Your task to perform on an android device: turn off notifications settings in the gmail app Image 0: 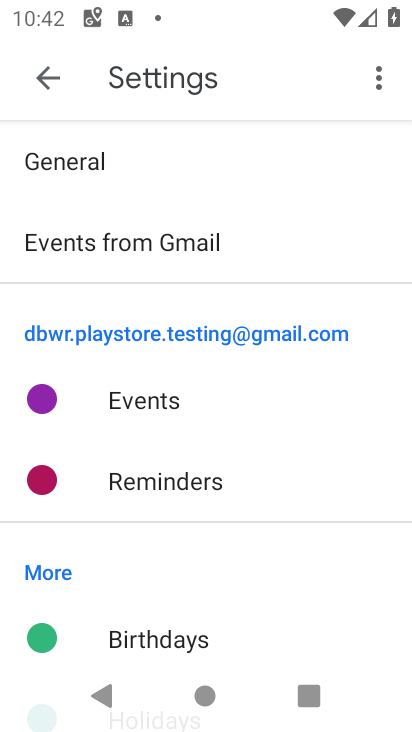
Step 0: press home button
Your task to perform on an android device: turn off notifications settings in the gmail app Image 1: 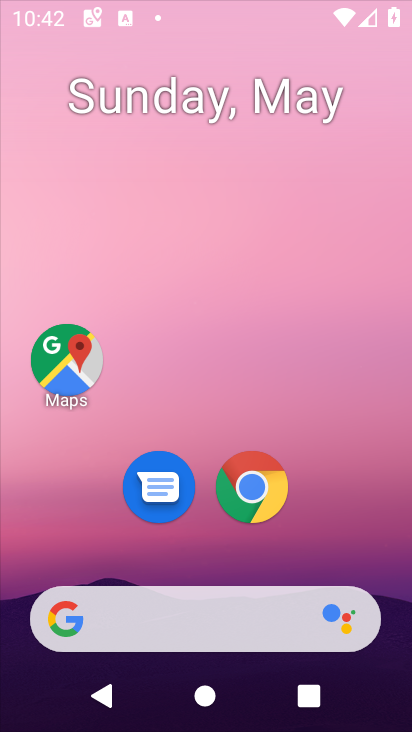
Step 1: drag from (163, 598) to (179, 201)
Your task to perform on an android device: turn off notifications settings in the gmail app Image 2: 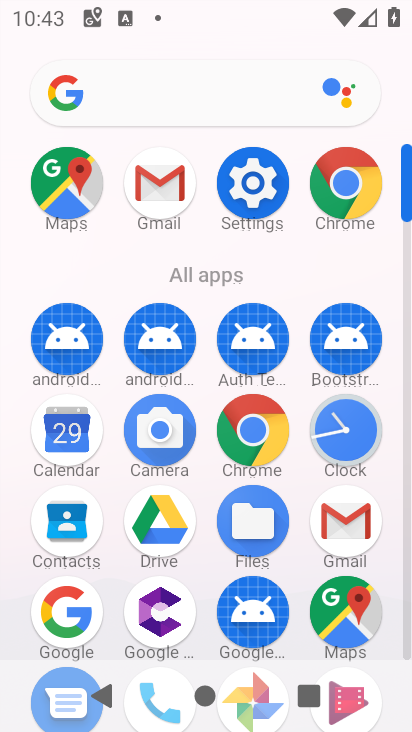
Step 2: click (356, 520)
Your task to perform on an android device: turn off notifications settings in the gmail app Image 3: 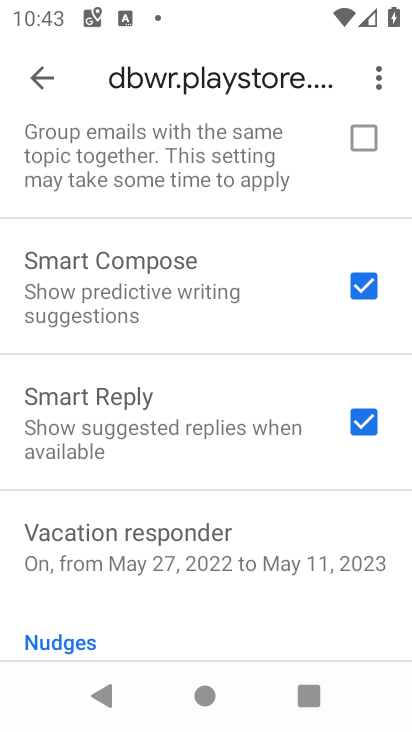
Step 3: click (40, 96)
Your task to perform on an android device: turn off notifications settings in the gmail app Image 4: 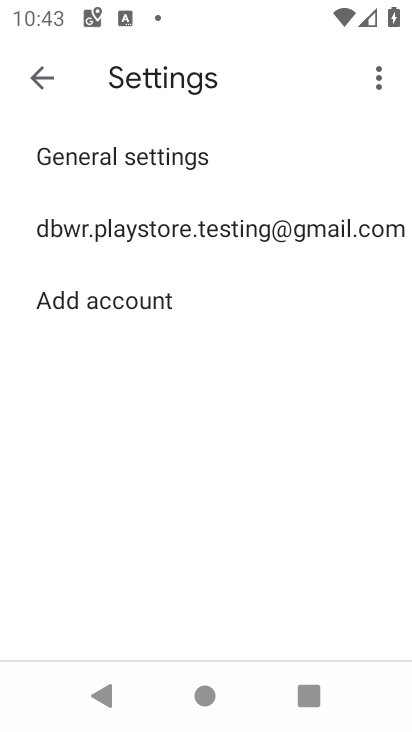
Step 4: click (90, 161)
Your task to perform on an android device: turn off notifications settings in the gmail app Image 5: 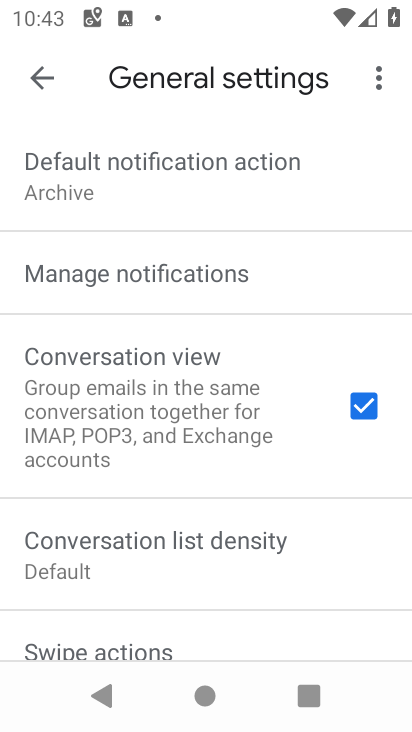
Step 5: click (157, 266)
Your task to perform on an android device: turn off notifications settings in the gmail app Image 6: 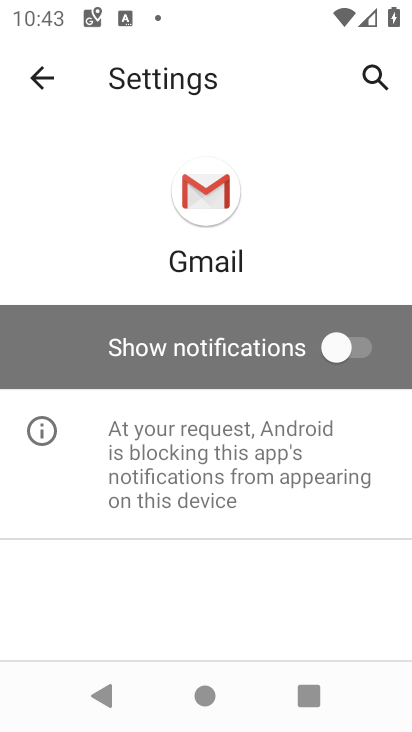
Step 6: task complete